Your task to perform on an android device: open app "DoorDash - Food Delivery" Image 0: 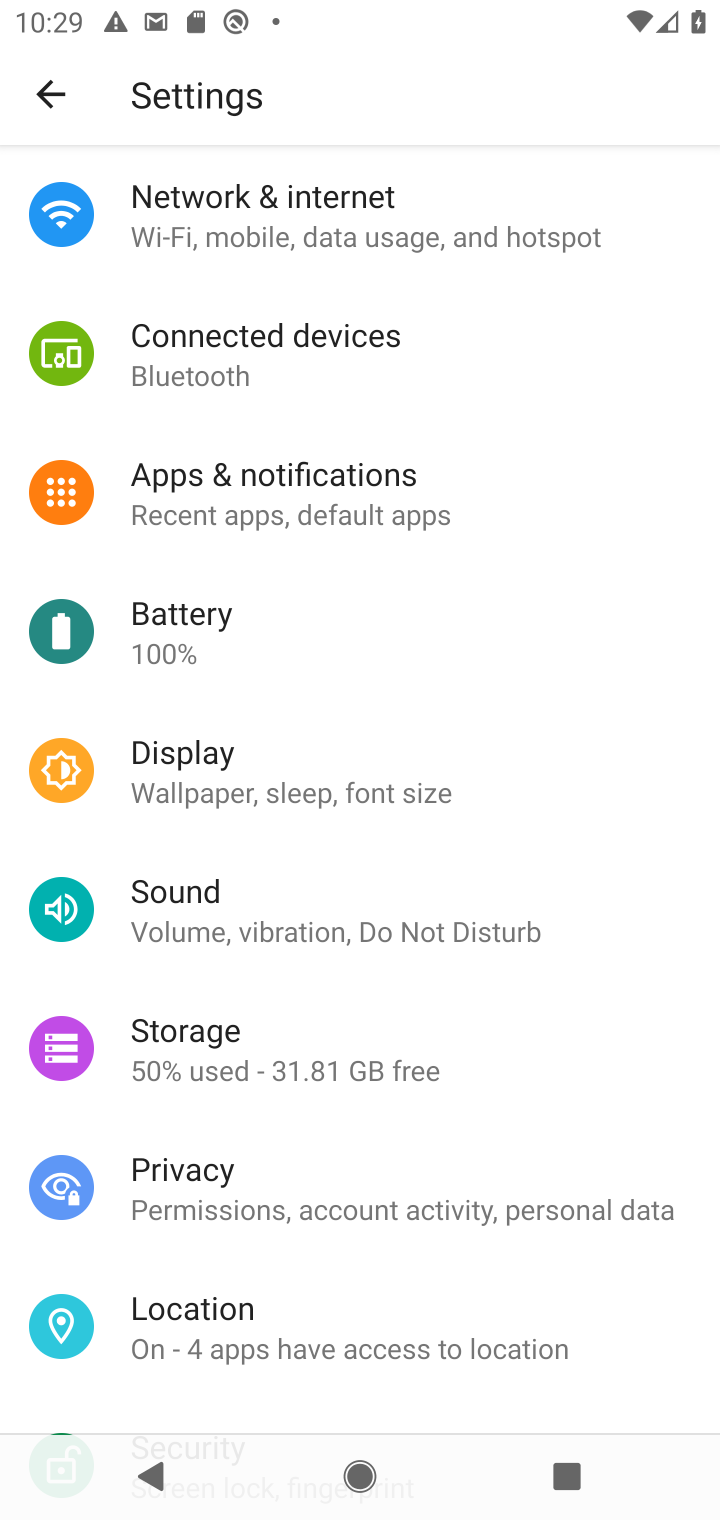
Step 0: press home button
Your task to perform on an android device: open app "DoorDash - Food Delivery" Image 1: 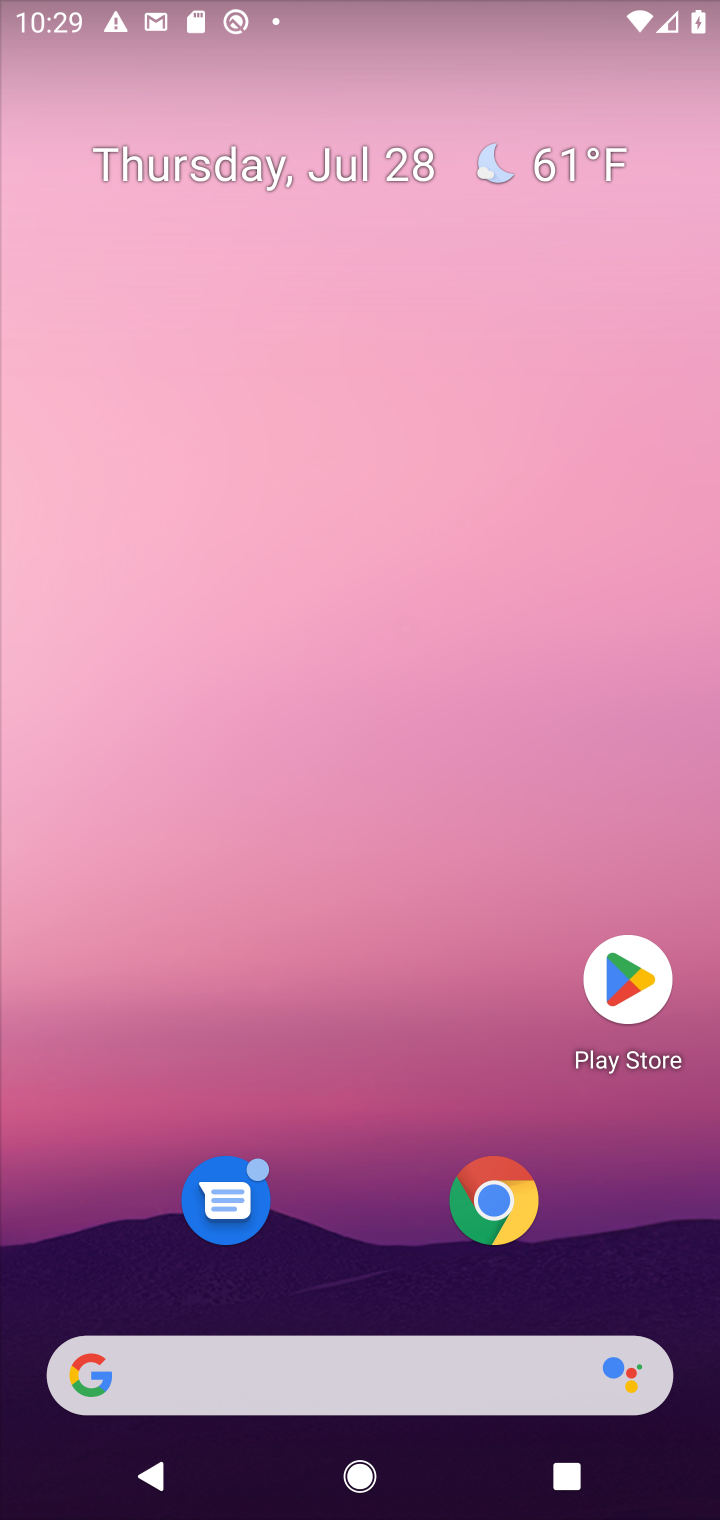
Step 1: click (628, 976)
Your task to perform on an android device: open app "DoorDash - Food Delivery" Image 2: 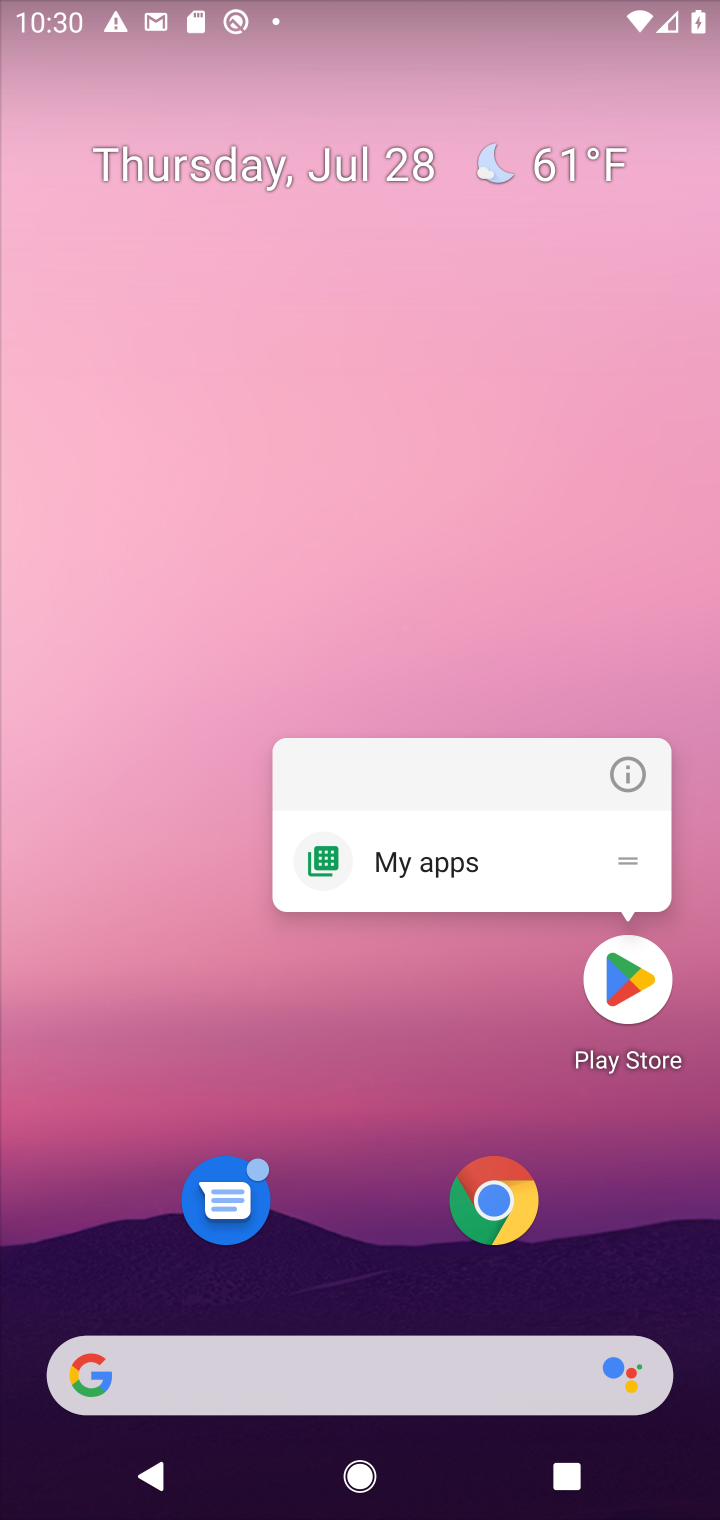
Step 2: click (628, 976)
Your task to perform on an android device: open app "DoorDash - Food Delivery" Image 3: 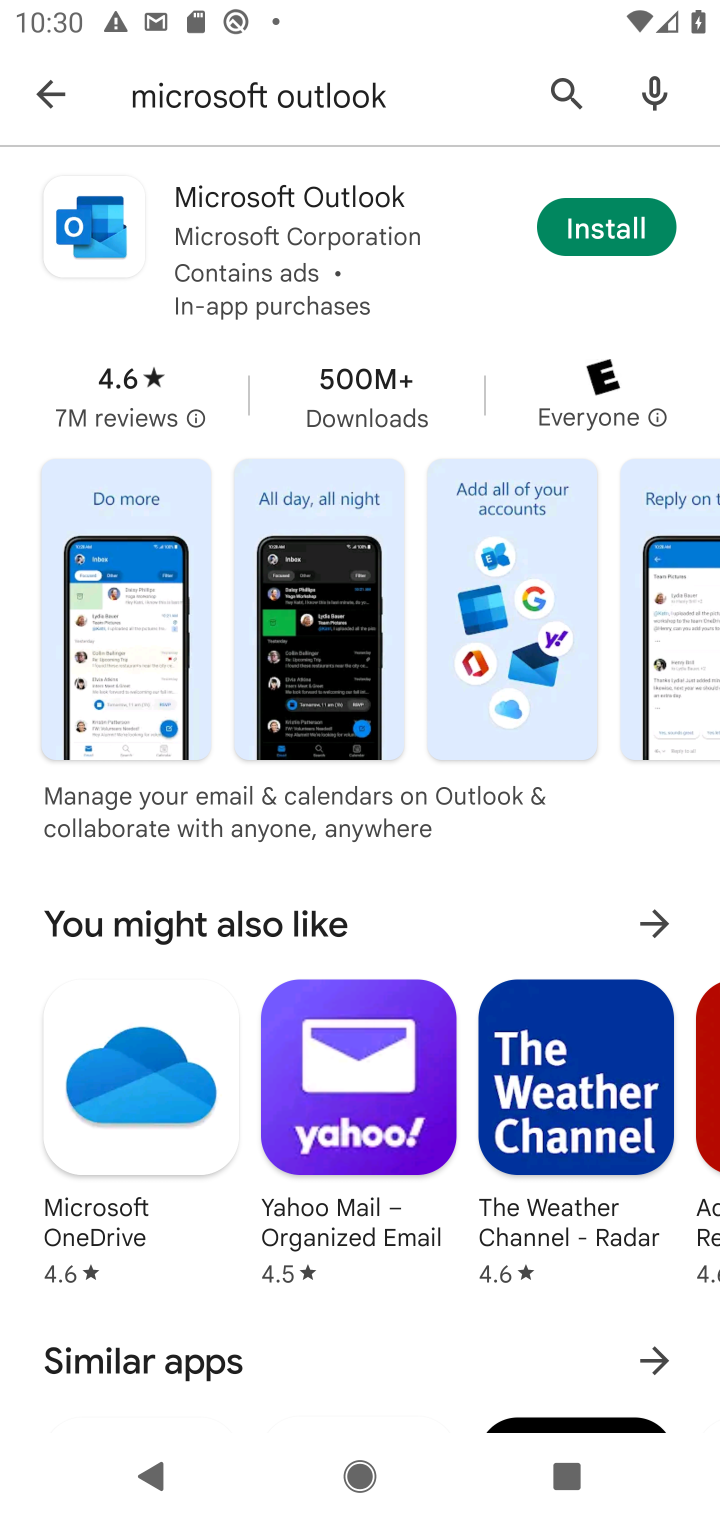
Step 3: click (628, 980)
Your task to perform on an android device: open app "DoorDash - Food Delivery" Image 4: 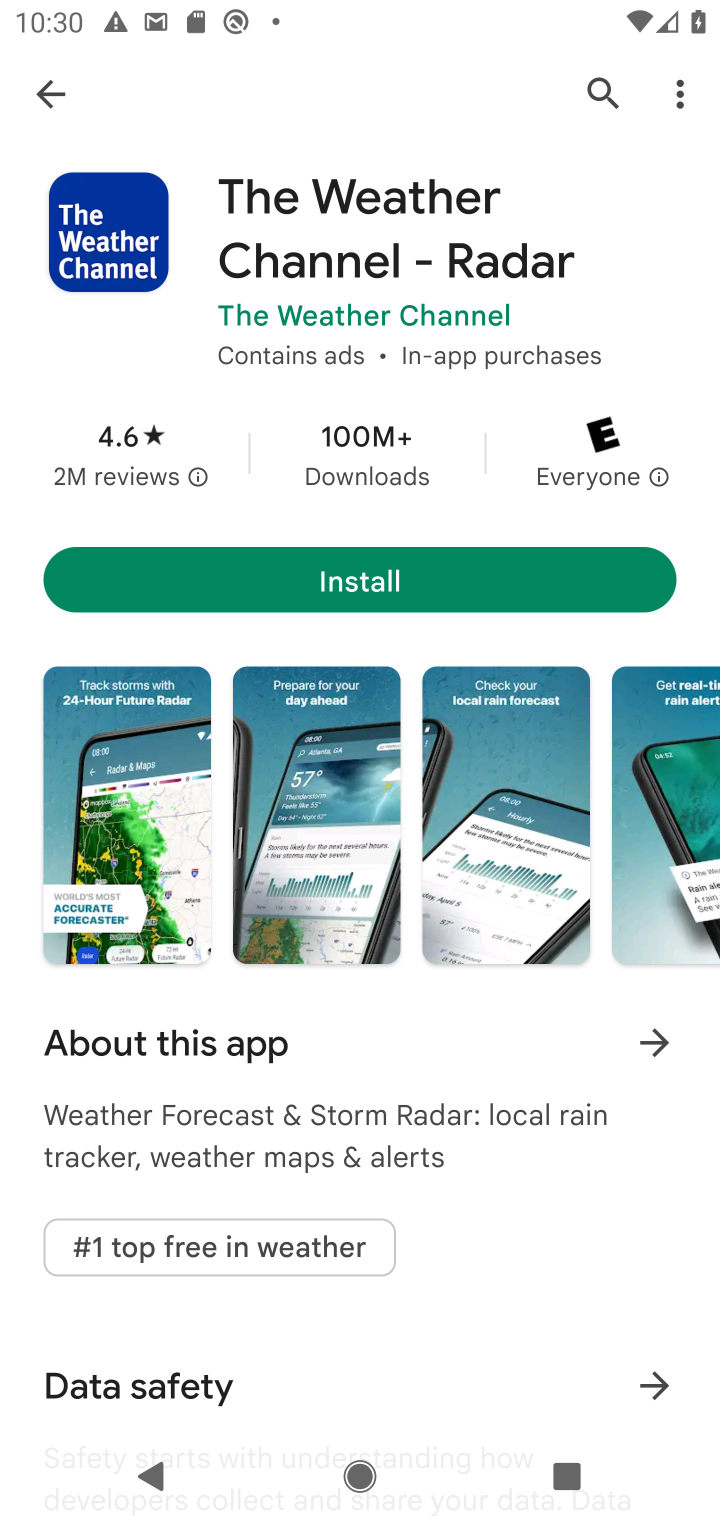
Step 4: click (55, 90)
Your task to perform on an android device: open app "DoorDash - Food Delivery" Image 5: 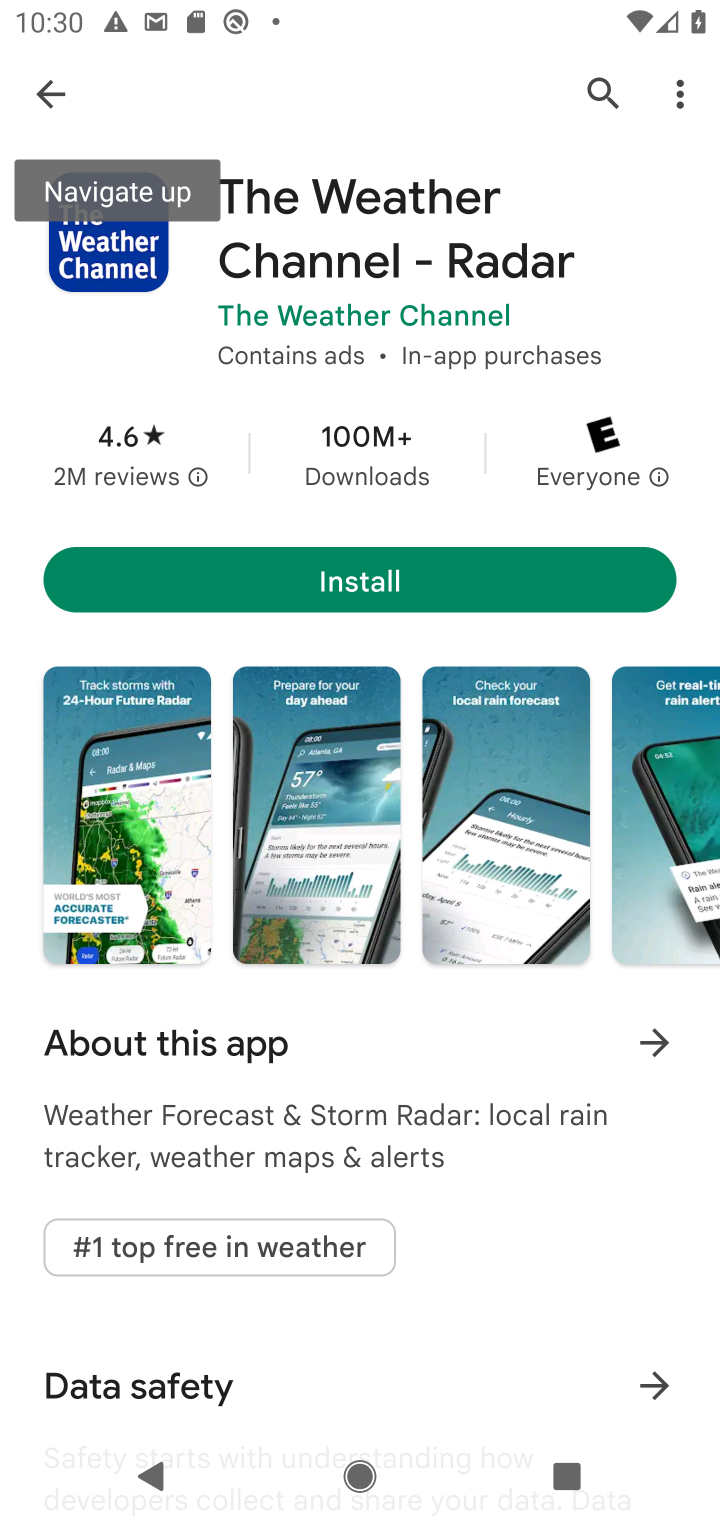
Step 5: click (593, 84)
Your task to perform on an android device: open app "DoorDash - Food Delivery" Image 6: 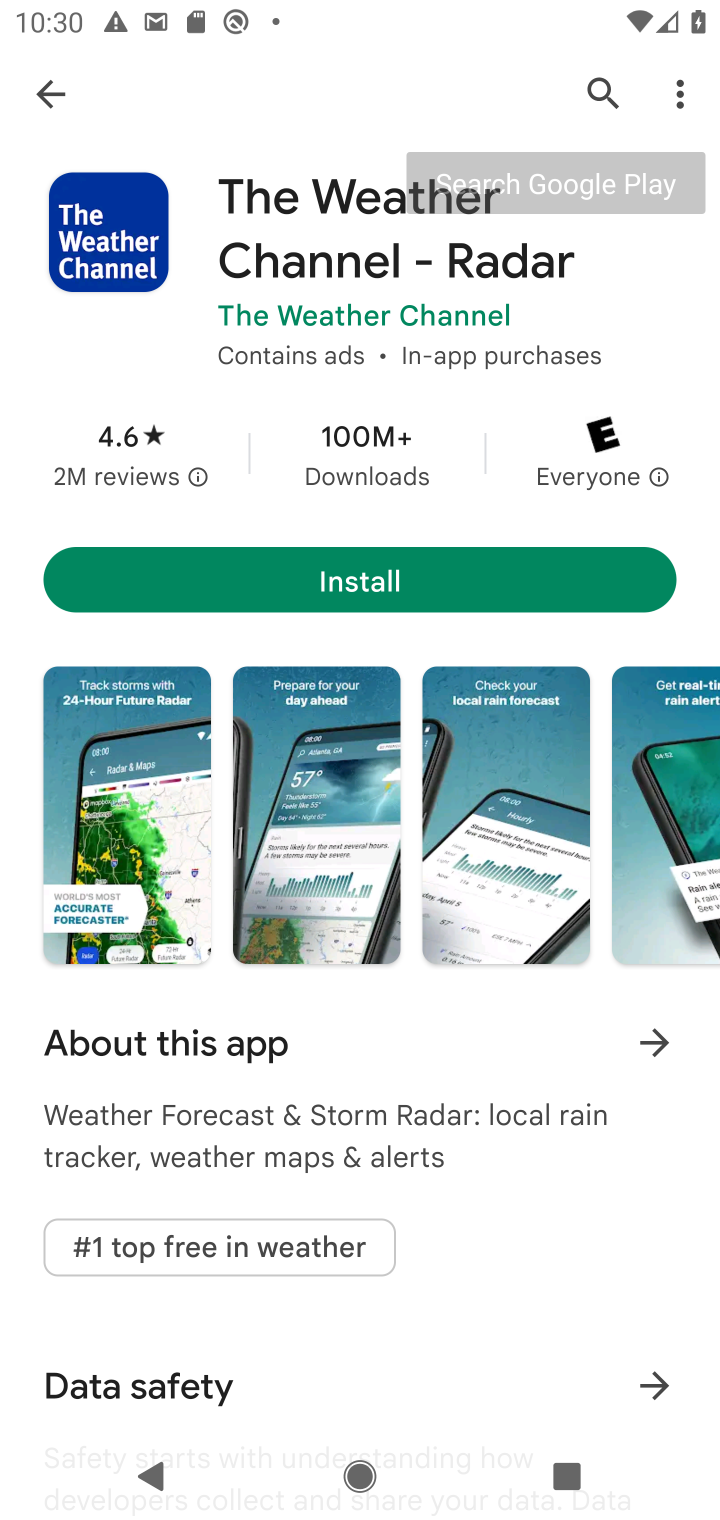
Step 6: click (593, 93)
Your task to perform on an android device: open app "DoorDash - Food Delivery" Image 7: 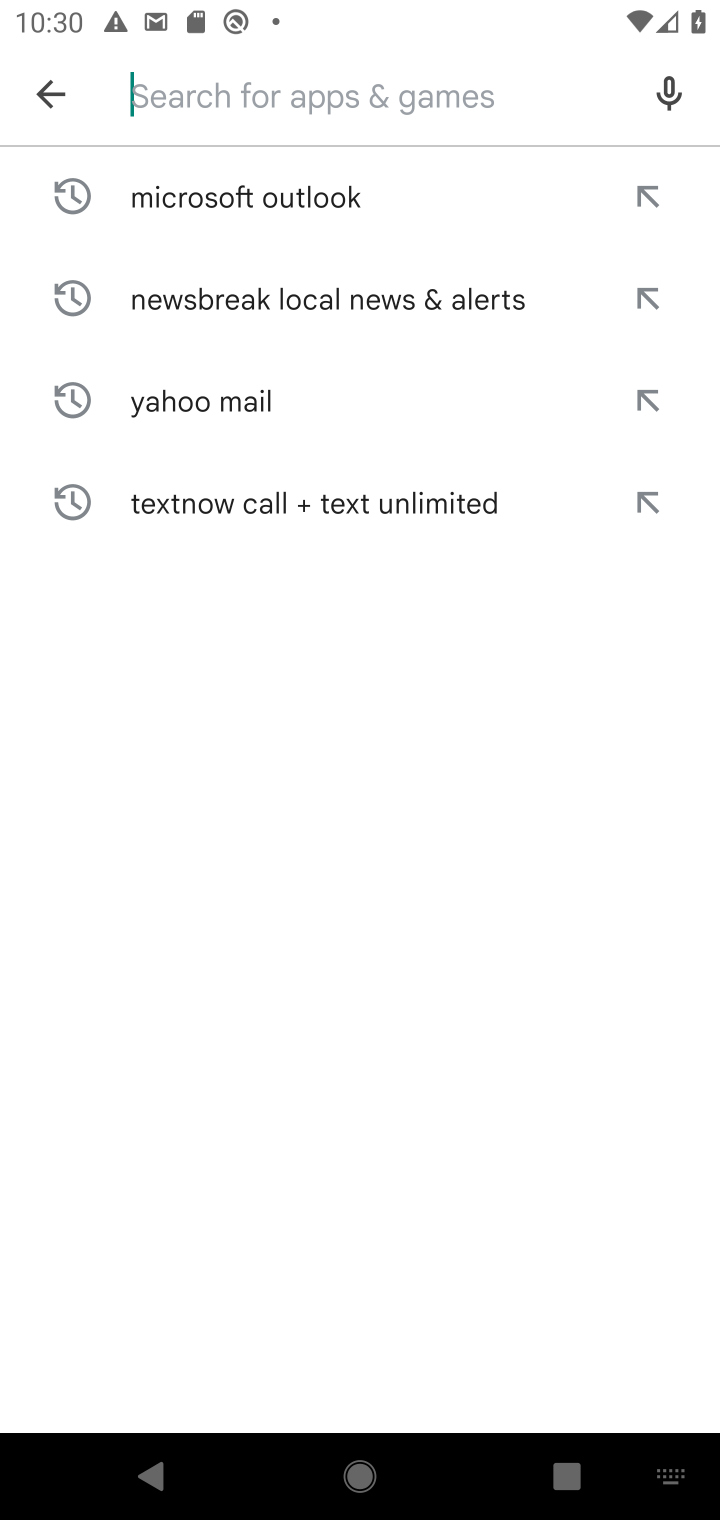
Step 7: type "DoorDash - Food Delivery"
Your task to perform on an android device: open app "DoorDash - Food Delivery" Image 8: 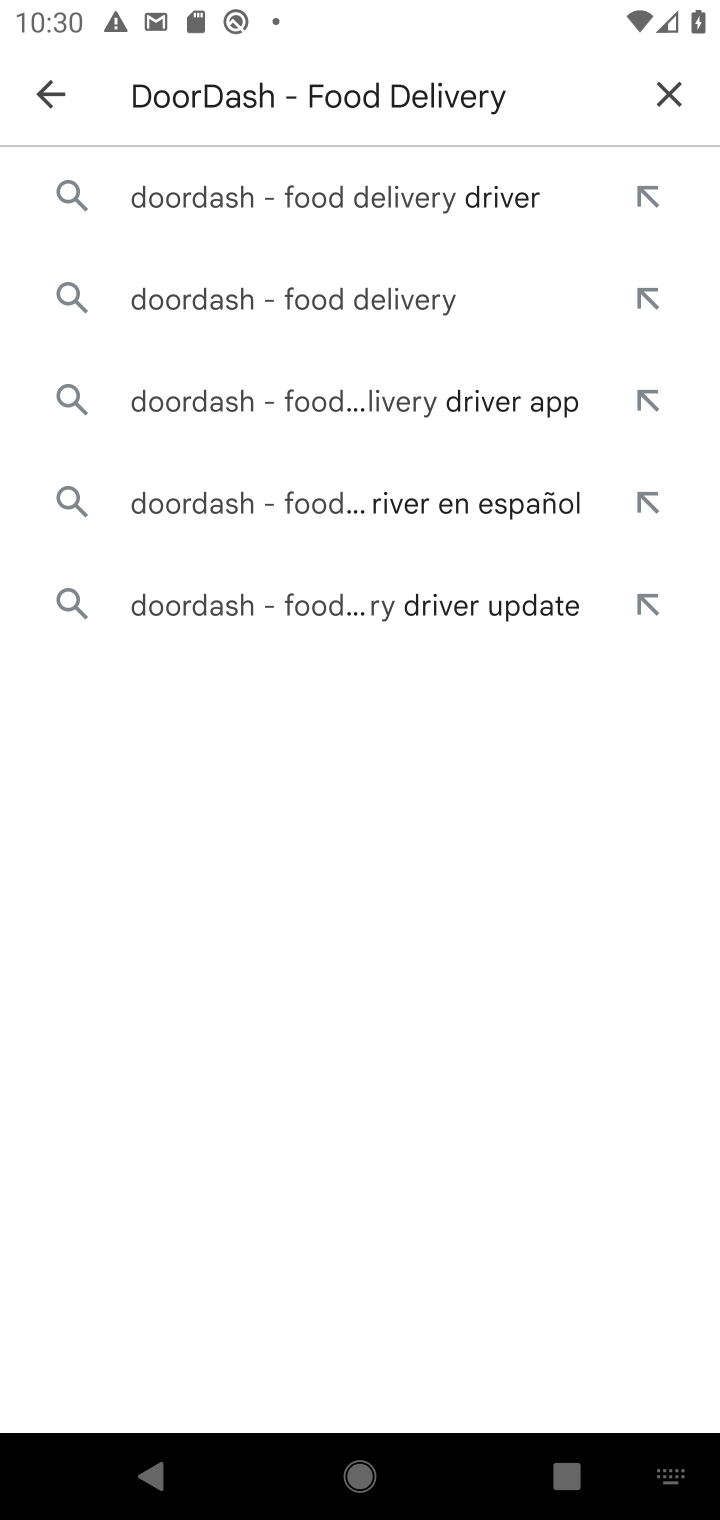
Step 8: click (353, 195)
Your task to perform on an android device: open app "DoorDash - Food Delivery" Image 9: 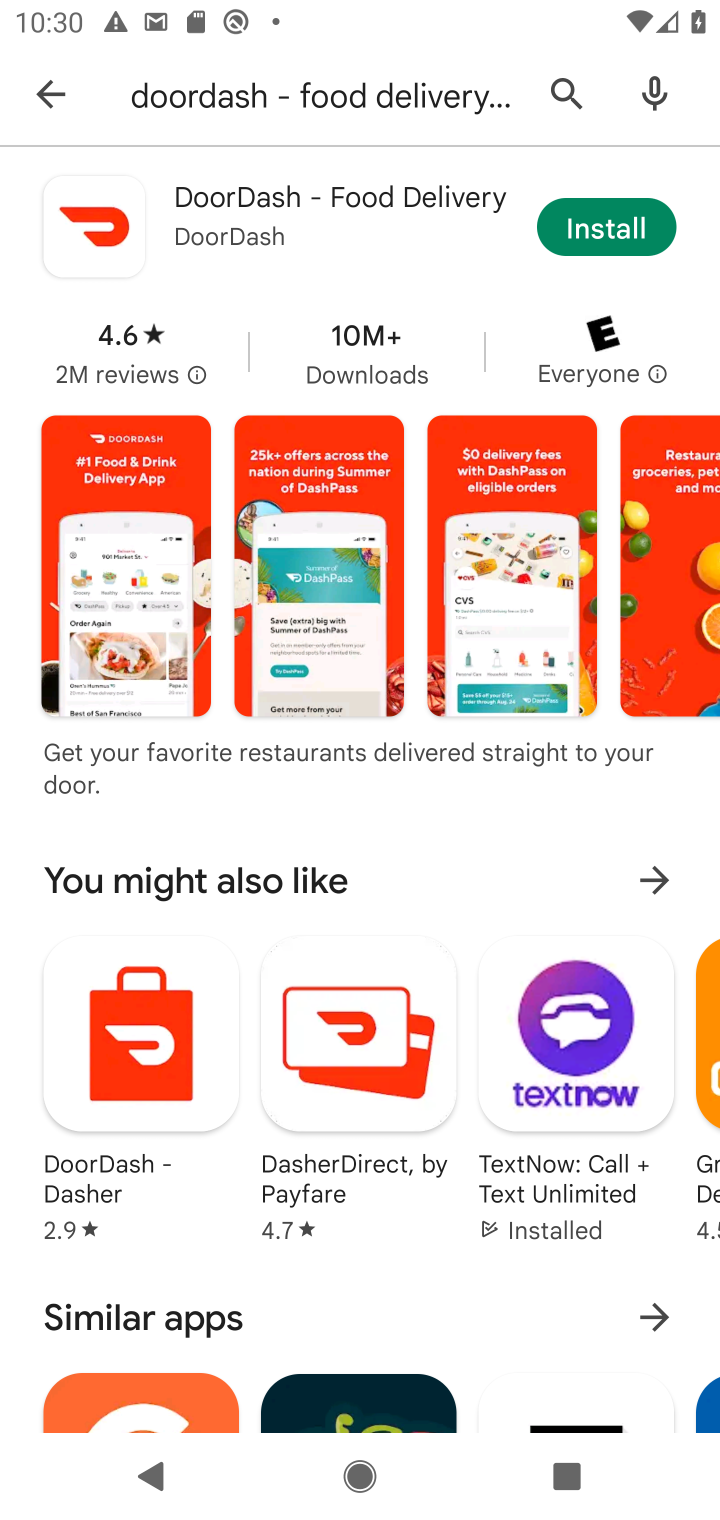
Step 9: task complete